Your task to perform on an android device: toggle priority inbox in the gmail app Image 0: 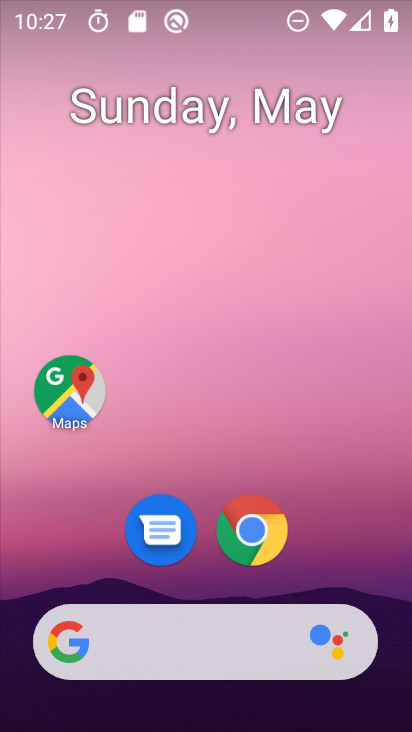
Step 0: drag from (198, 675) to (216, 81)
Your task to perform on an android device: toggle priority inbox in the gmail app Image 1: 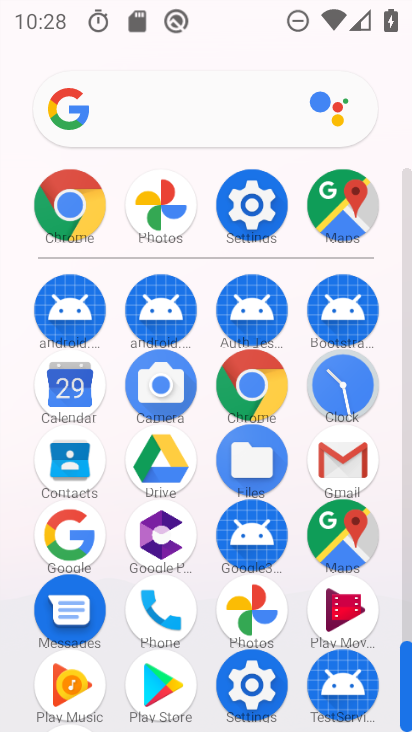
Step 1: click (332, 467)
Your task to perform on an android device: toggle priority inbox in the gmail app Image 2: 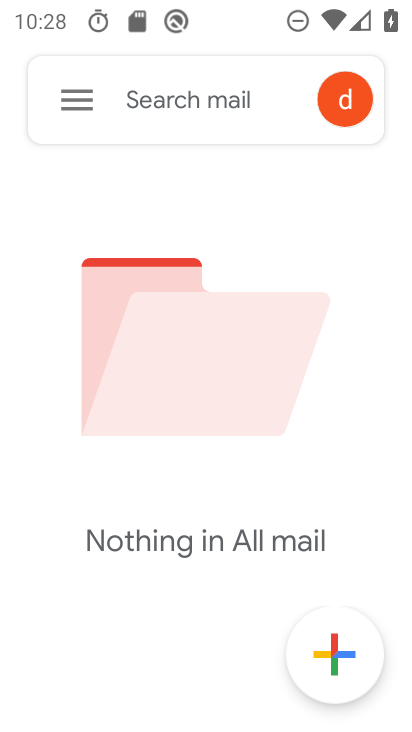
Step 2: click (81, 100)
Your task to perform on an android device: toggle priority inbox in the gmail app Image 3: 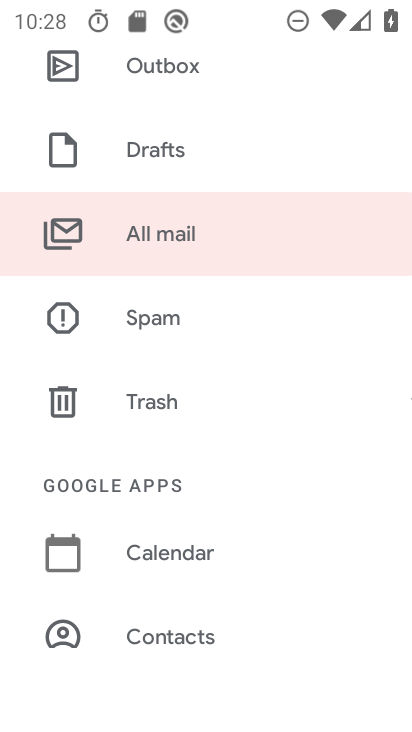
Step 3: drag from (173, 547) to (264, 140)
Your task to perform on an android device: toggle priority inbox in the gmail app Image 4: 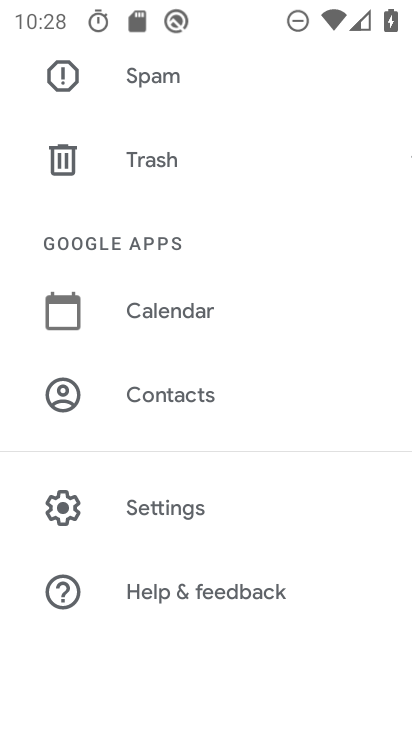
Step 4: click (172, 508)
Your task to perform on an android device: toggle priority inbox in the gmail app Image 5: 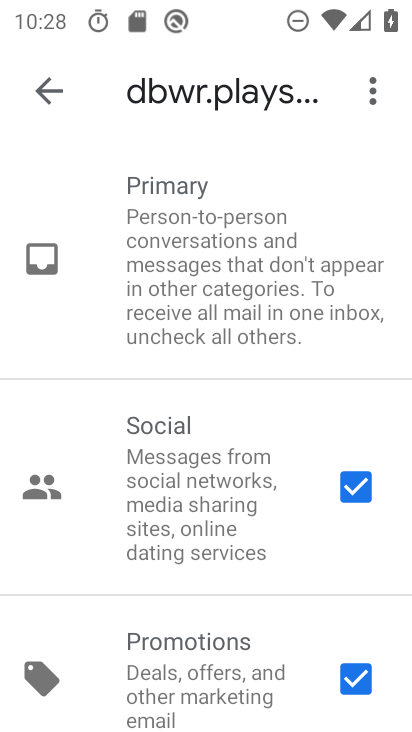
Step 5: click (46, 101)
Your task to perform on an android device: toggle priority inbox in the gmail app Image 6: 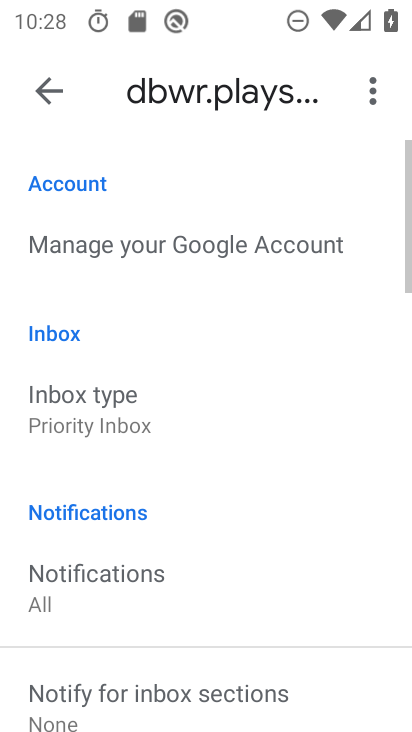
Step 6: click (123, 403)
Your task to perform on an android device: toggle priority inbox in the gmail app Image 7: 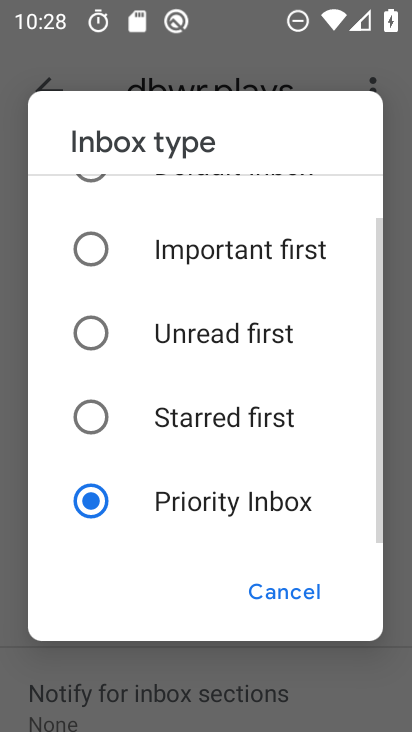
Step 7: task complete